Your task to perform on an android device: manage bookmarks in the chrome app Image 0: 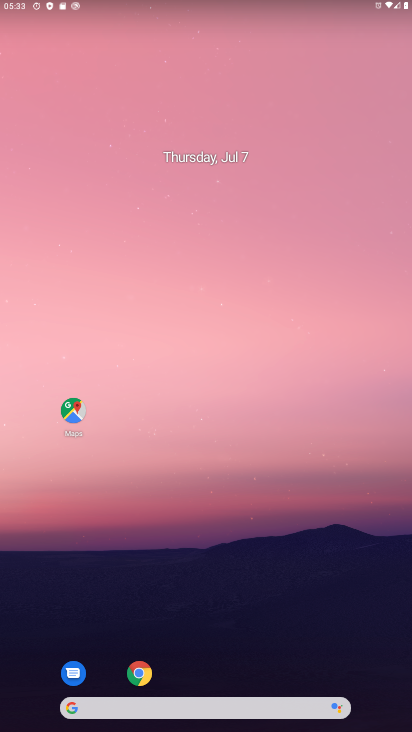
Step 0: click (303, 54)
Your task to perform on an android device: manage bookmarks in the chrome app Image 1: 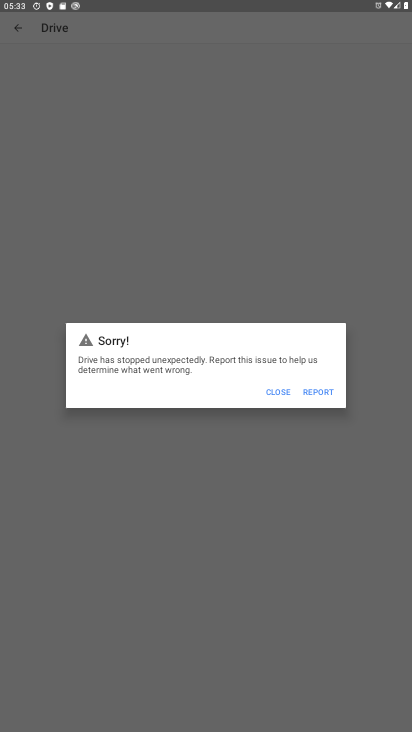
Step 1: press home button
Your task to perform on an android device: manage bookmarks in the chrome app Image 2: 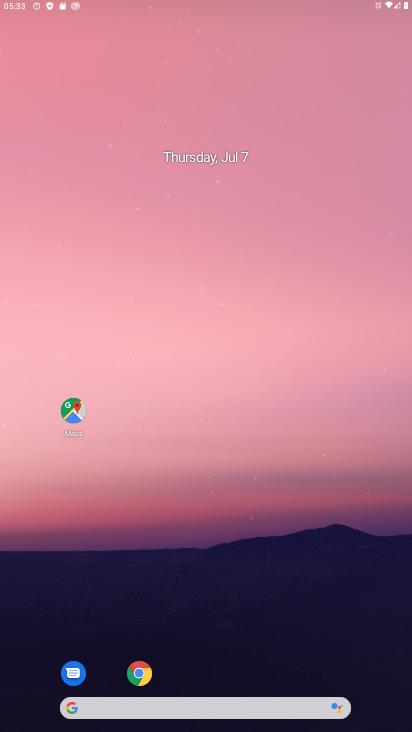
Step 2: drag from (274, 689) to (285, 36)
Your task to perform on an android device: manage bookmarks in the chrome app Image 3: 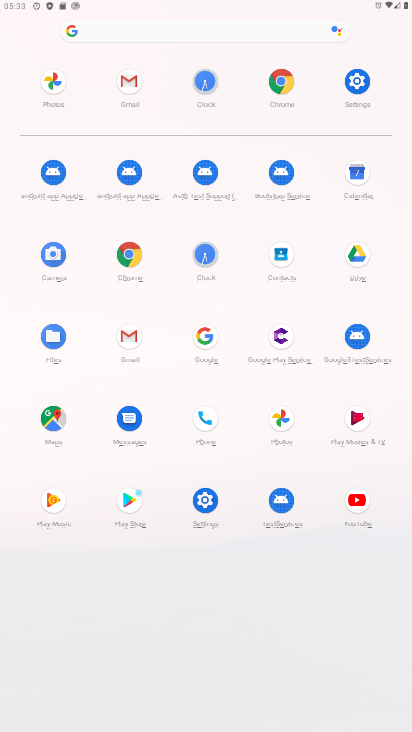
Step 3: click (126, 242)
Your task to perform on an android device: manage bookmarks in the chrome app Image 4: 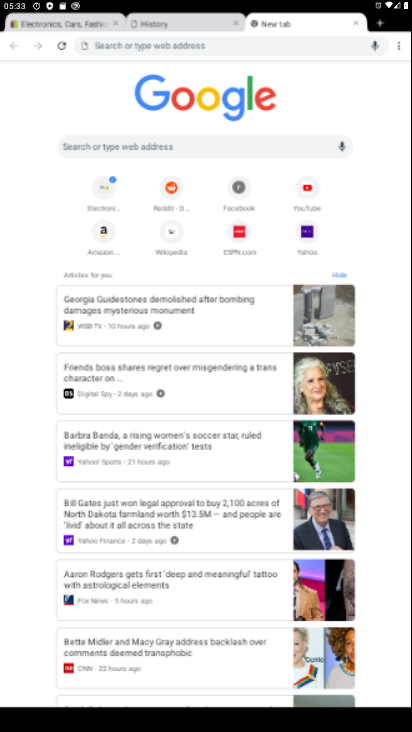
Step 4: drag from (402, 45) to (303, 222)
Your task to perform on an android device: manage bookmarks in the chrome app Image 5: 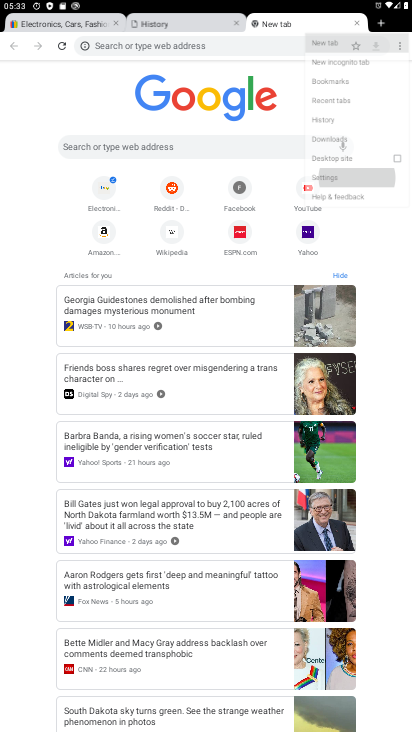
Step 5: click (303, 214)
Your task to perform on an android device: manage bookmarks in the chrome app Image 6: 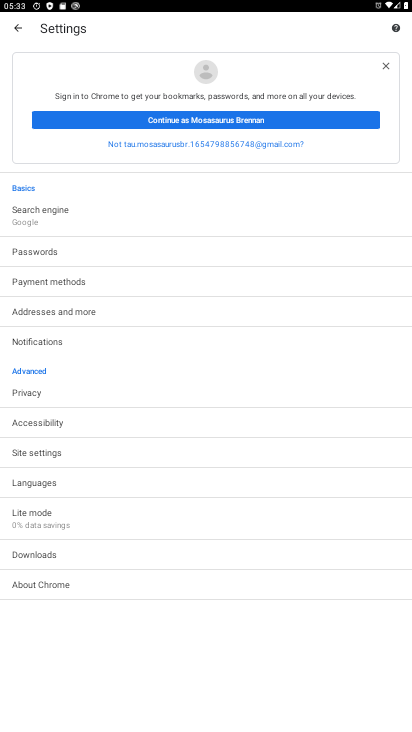
Step 6: press back button
Your task to perform on an android device: manage bookmarks in the chrome app Image 7: 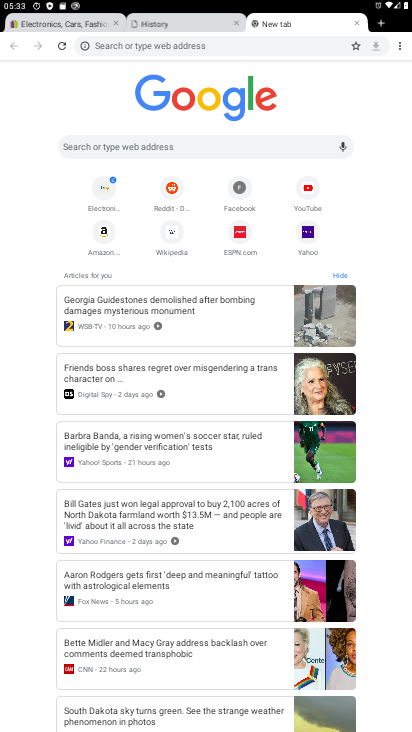
Step 7: drag from (396, 41) to (364, 100)
Your task to perform on an android device: manage bookmarks in the chrome app Image 8: 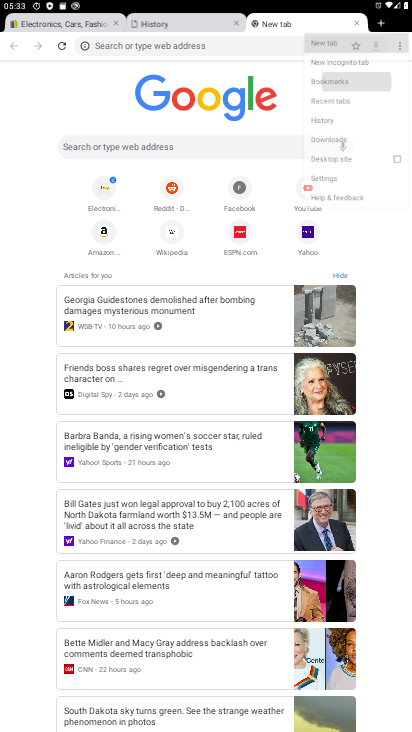
Step 8: click (348, 92)
Your task to perform on an android device: manage bookmarks in the chrome app Image 9: 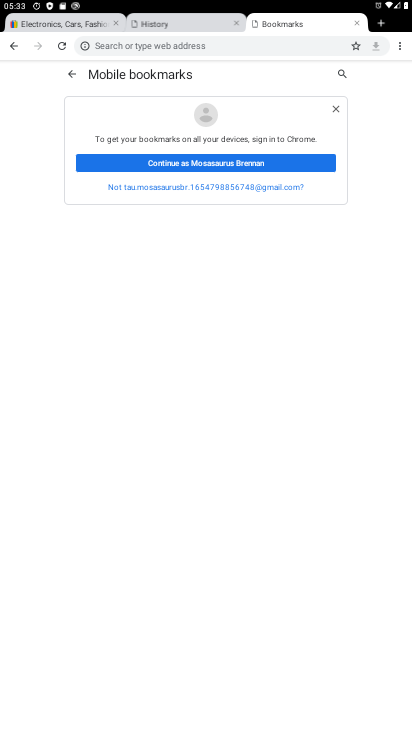
Step 9: task complete